Your task to perform on an android device: Clear all items from cart on amazon.com. Add logitech g pro to the cart on amazon.com, then select checkout. Image 0: 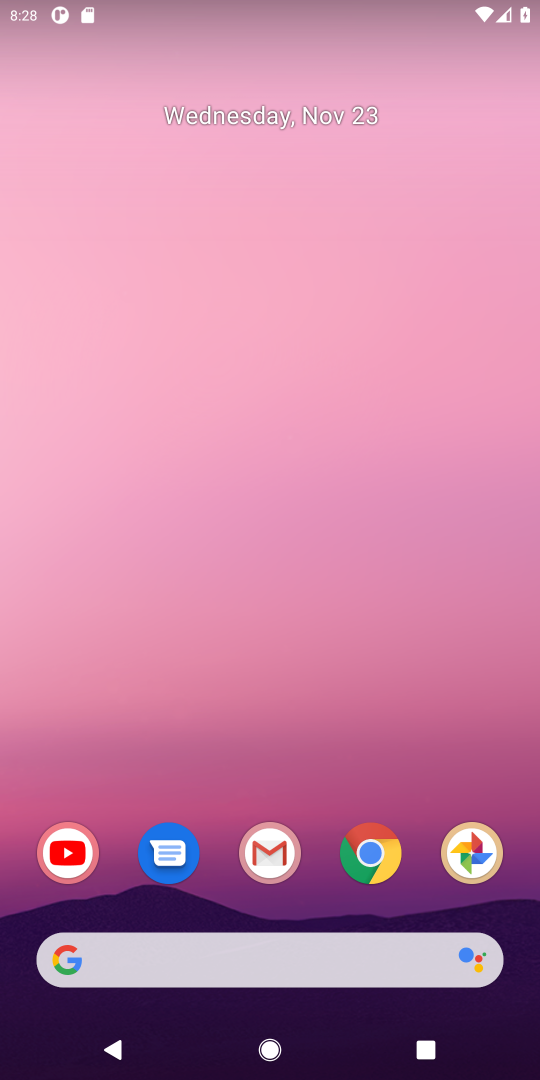
Step 0: click (367, 868)
Your task to perform on an android device: Clear all items from cart on amazon.com. Add logitech g pro to the cart on amazon.com, then select checkout. Image 1: 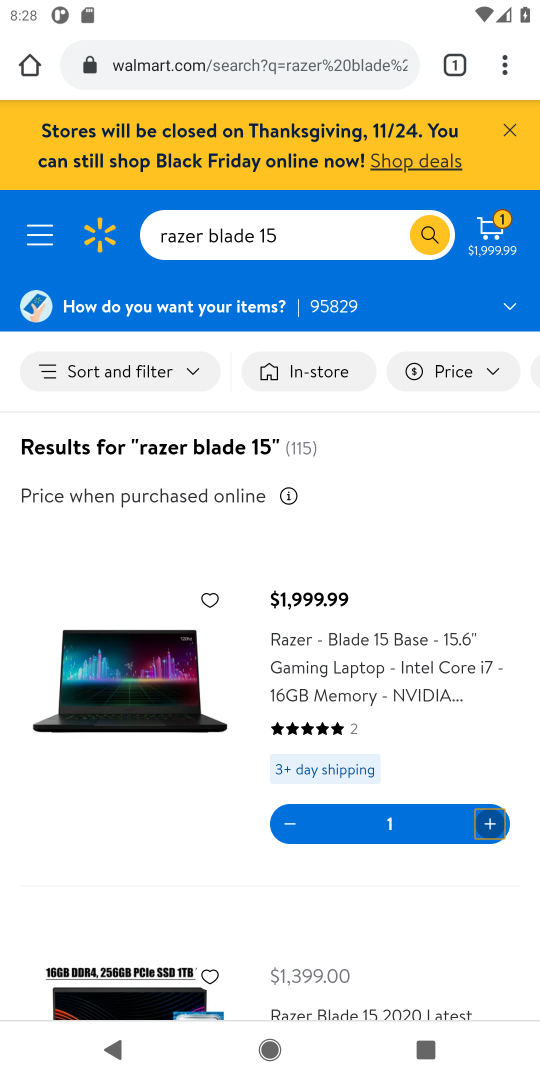
Step 1: click (226, 70)
Your task to perform on an android device: Clear all items from cart on amazon.com. Add logitech g pro to the cart on amazon.com, then select checkout. Image 2: 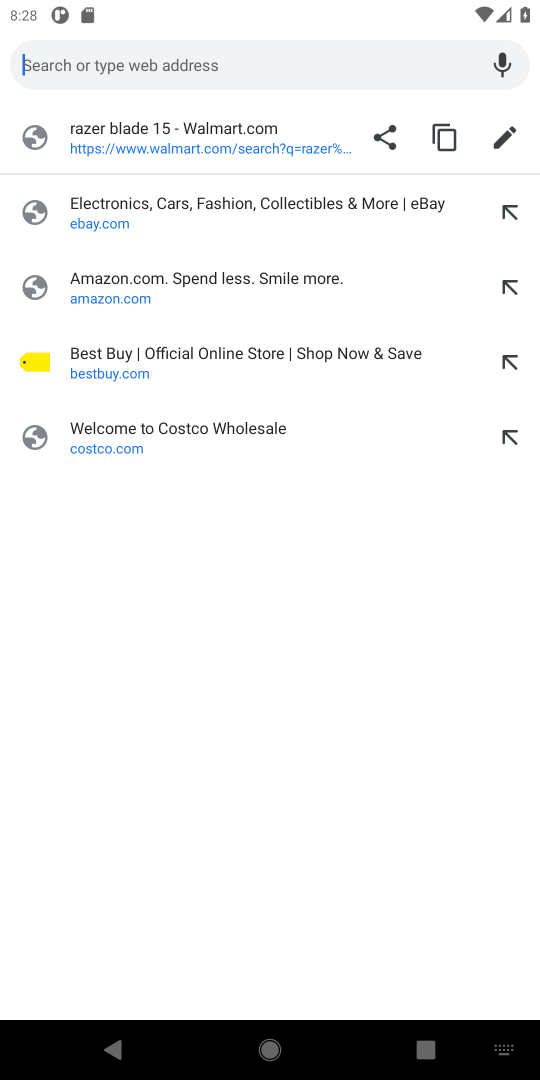
Step 2: click (104, 287)
Your task to perform on an android device: Clear all items from cart on amazon.com. Add logitech g pro to the cart on amazon.com, then select checkout. Image 3: 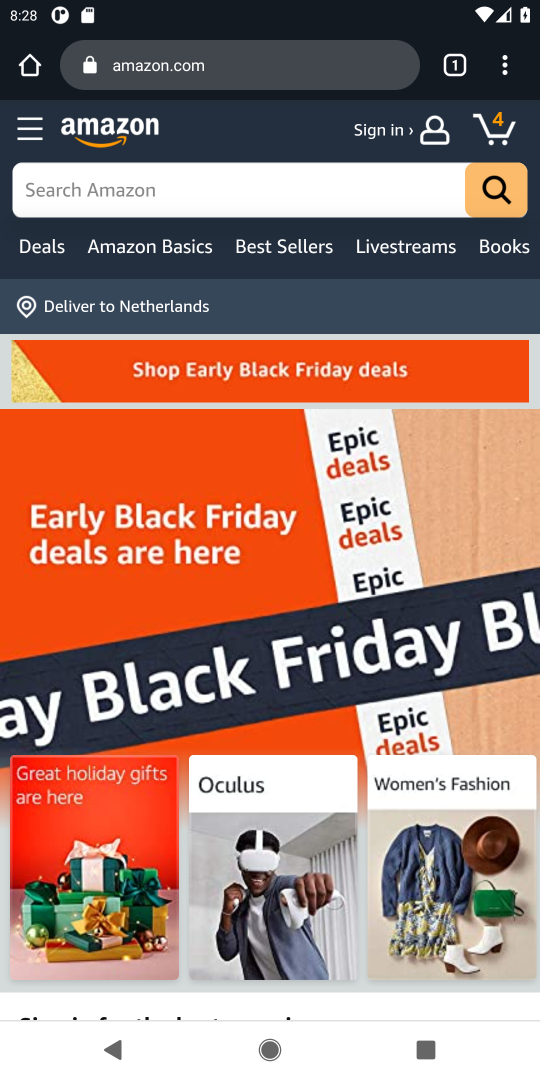
Step 3: click (502, 131)
Your task to perform on an android device: Clear all items from cart on amazon.com. Add logitech g pro to the cart on amazon.com, then select checkout. Image 4: 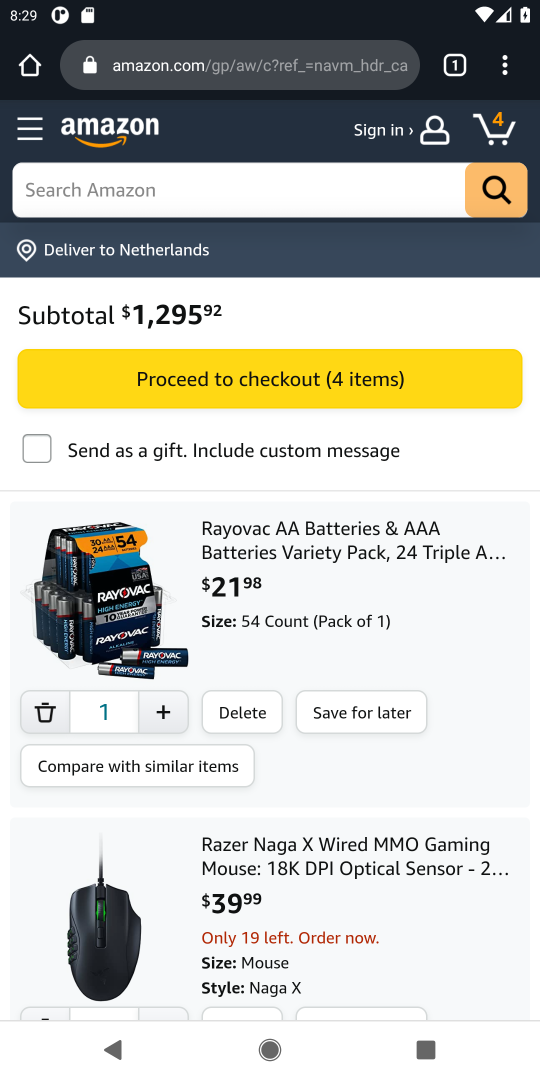
Step 4: click (235, 705)
Your task to perform on an android device: Clear all items from cart on amazon.com. Add logitech g pro to the cart on amazon.com, then select checkout. Image 5: 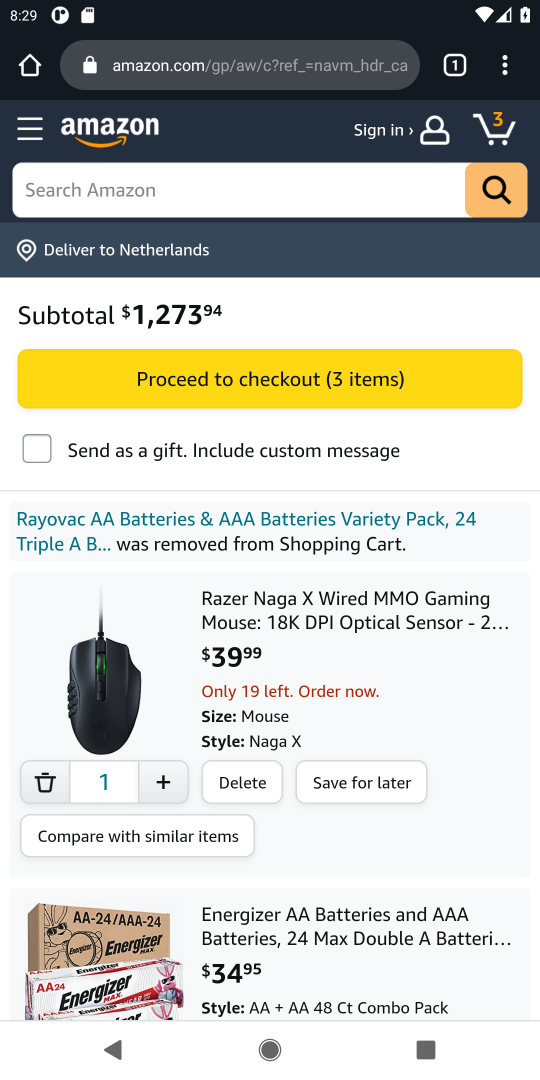
Step 5: click (231, 782)
Your task to perform on an android device: Clear all items from cart on amazon.com. Add logitech g pro to the cart on amazon.com, then select checkout. Image 6: 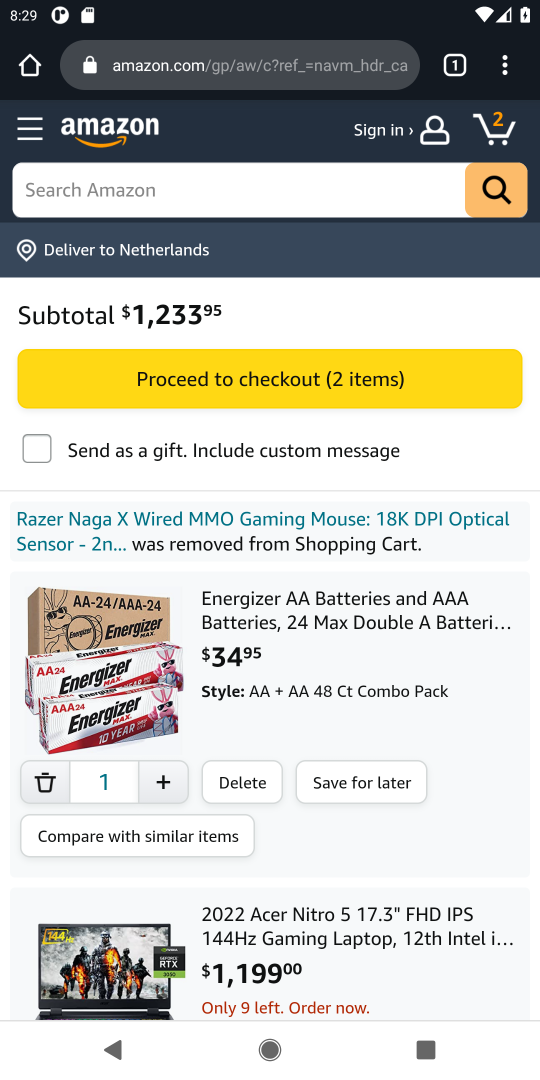
Step 6: click (231, 782)
Your task to perform on an android device: Clear all items from cart on amazon.com. Add logitech g pro to the cart on amazon.com, then select checkout. Image 7: 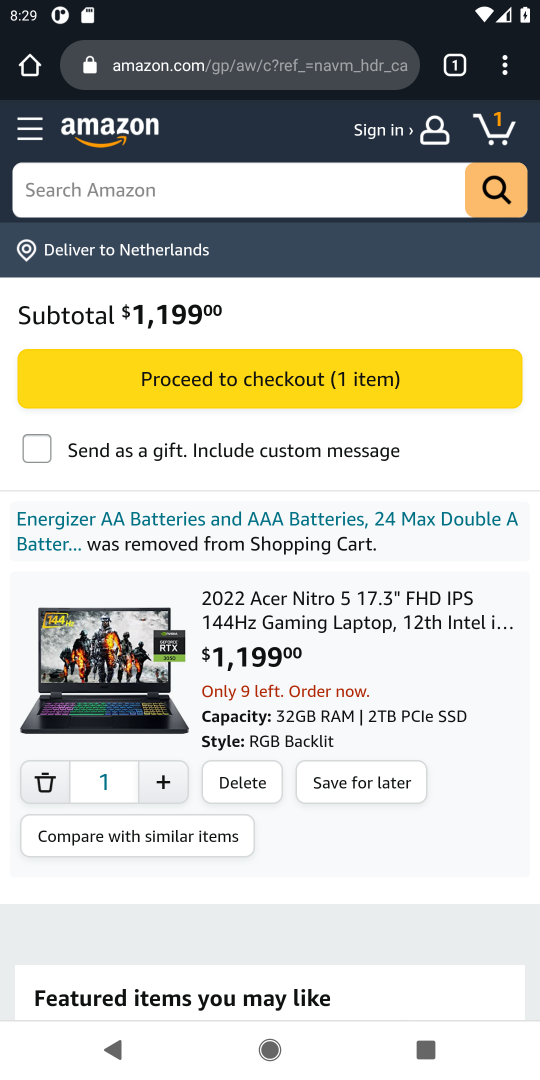
Step 7: click (231, 782)
Your task to perform on an android device: Clear all items from cart on amazon.com. Add logitech g pro to the cart on amazon.com, then select checkout. Image 8: 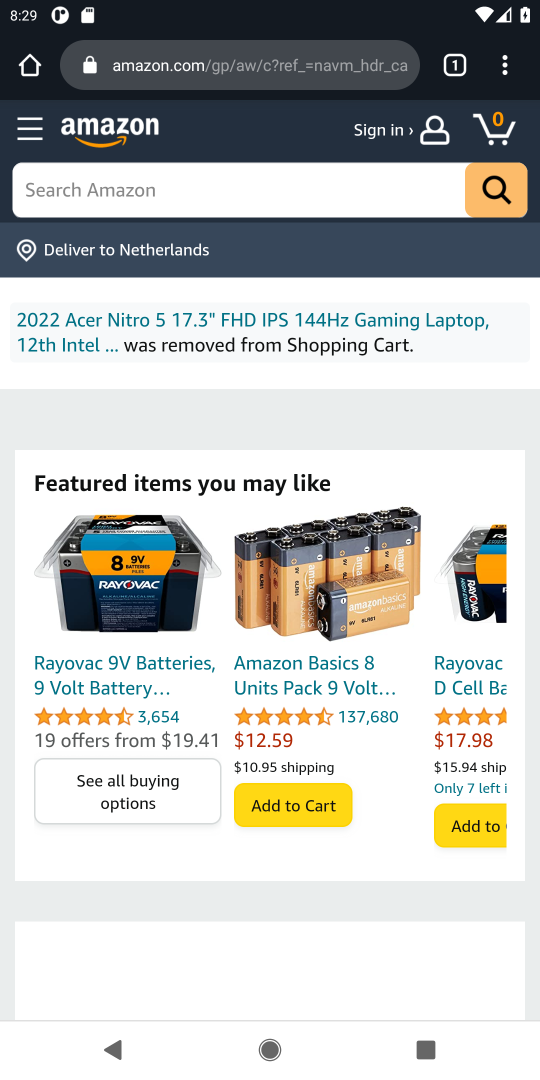
Step 8: click (138, 202)
Your task to perform on an android device: Clear all items from cart on amazon.com. Add logitech g pro to the cart on amazon.com, then select checkout. Image 9: 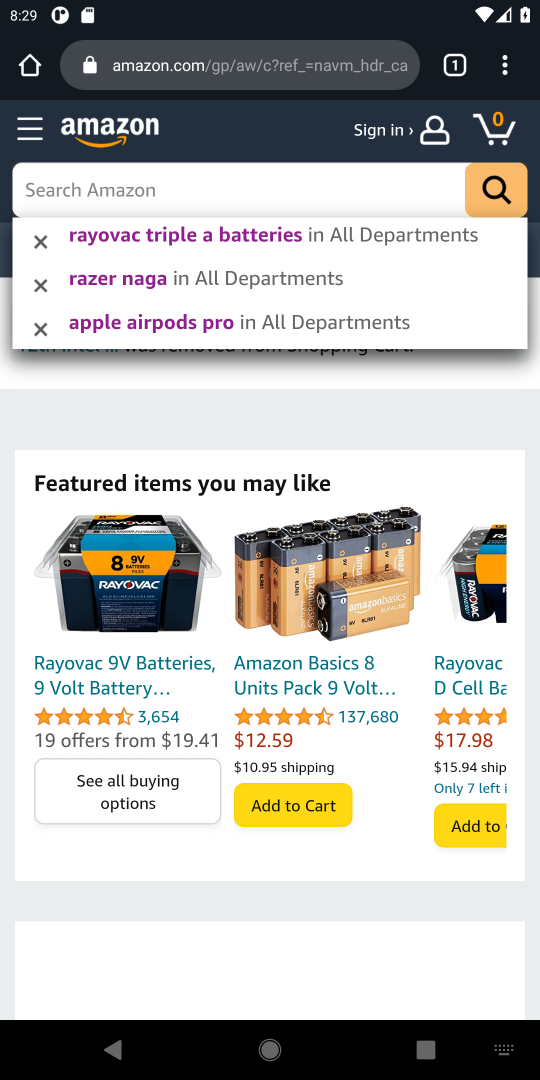
Step 9: type "logitech g pro"
Your task to perform on an android device: Clear all items from cart on amazon.com. Add logitech g pro to the cart on amazon.com, then select checkout. Image 10: 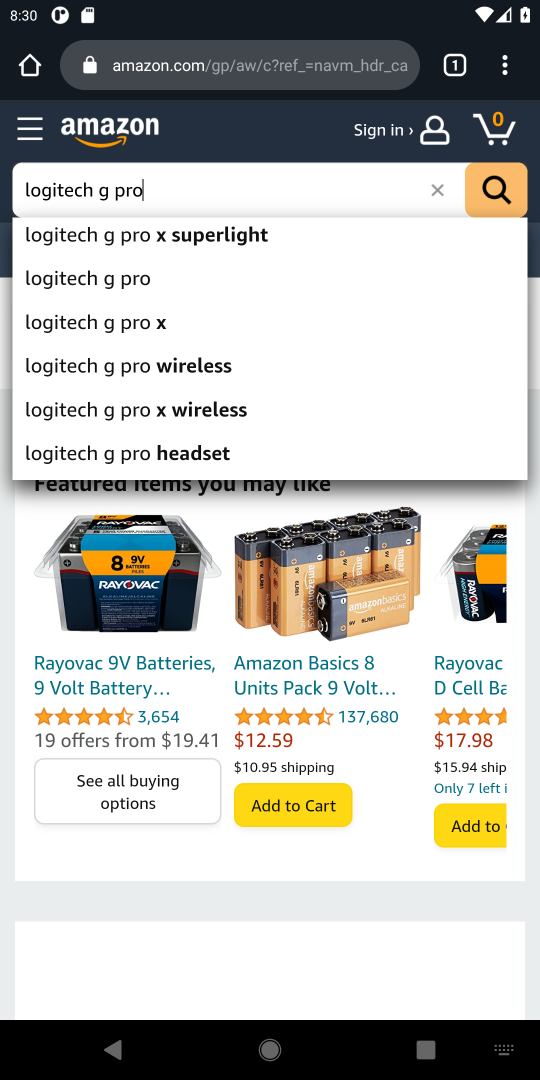
Step 10: click (73, 274)
Your task to perform on an android device: Clear all items from cart on amazon.com. Add logitech g pro to the cart on amazon.com, then select checkout. Image 11: 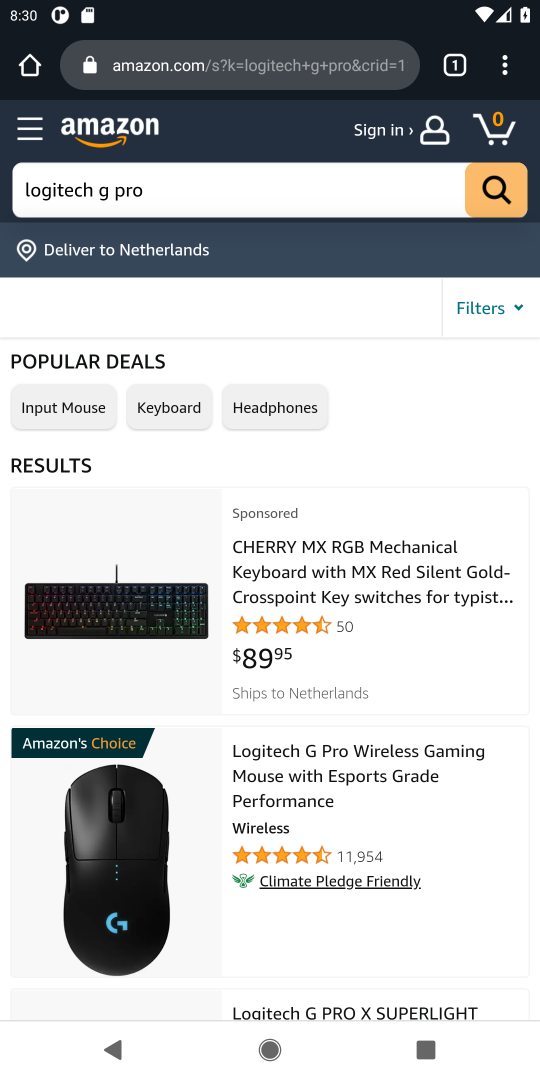
Step 11: drag from (129, 864) to (133, 540)
Your task to perform on an android device: Clear all items from cart on amazon.com. Add logitech g pro to the cart on amazon.com, then select checkout. Image 12: 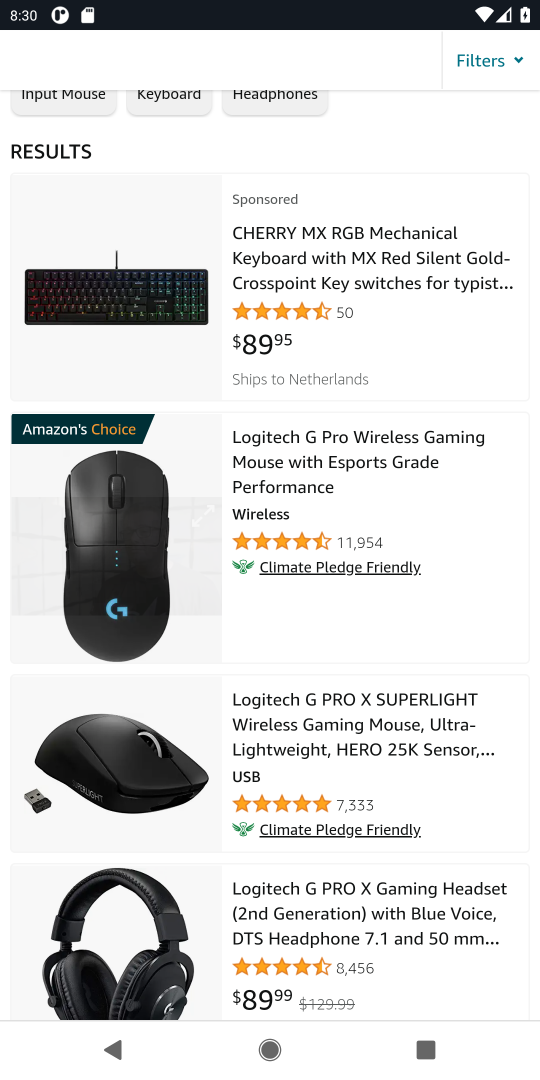
Step 12: drag from (134, 804) to (153, 515)
Your task to perform on an android device: Clear all items from cart on amazon.com. Add logitech g pro to the cart on amazon.com, then select checkout. Image 13: 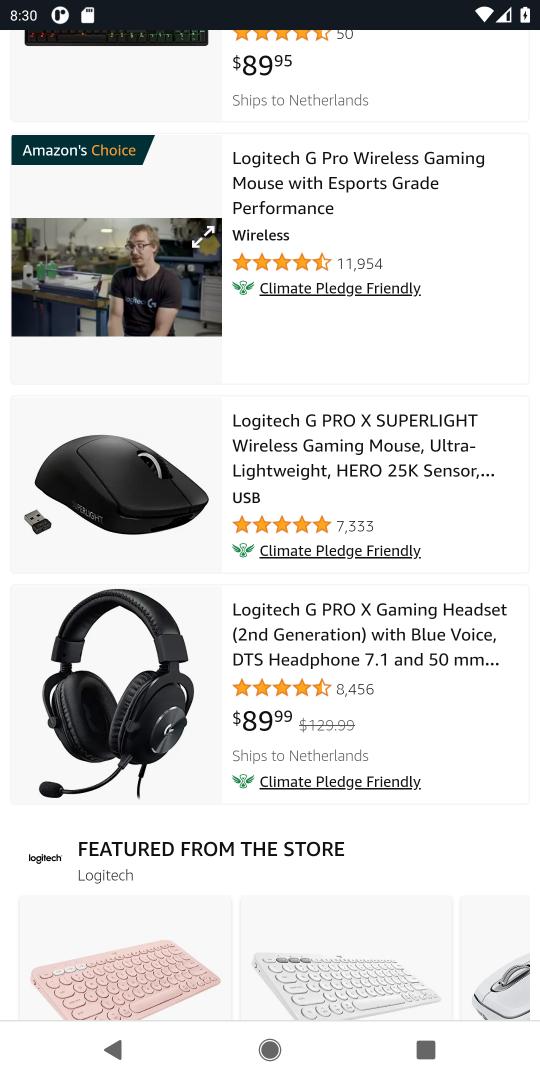
Step 13: click (119, 672)
Your task to perform on an android device: Clear all items from cart on amazon.com. Add logitech g pro to the cart on amazon.com, then select checkout. Image 14: 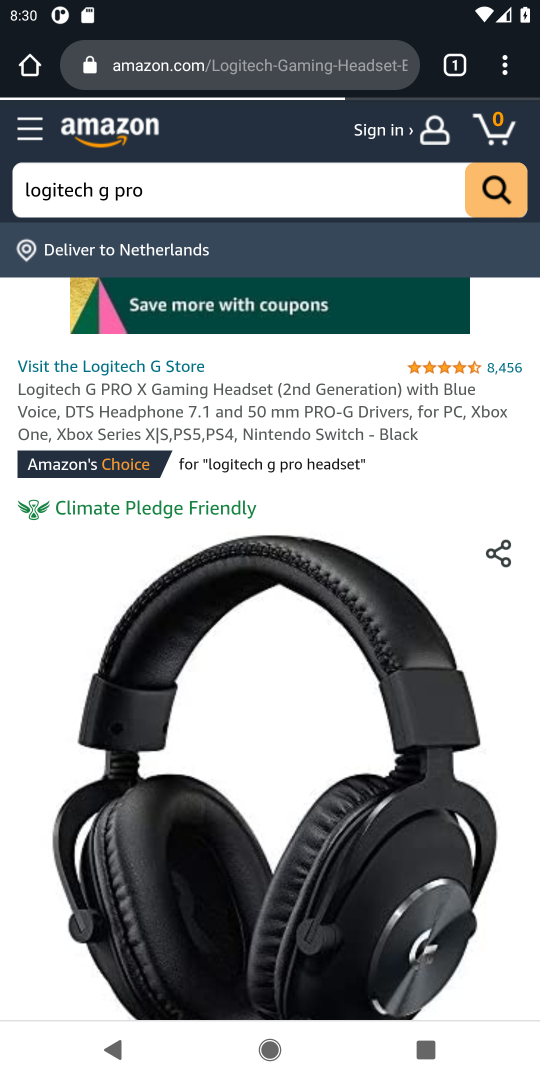
Step 14: drag from (233, 795) to (232, 303)
Your task to perform on an android device: Clear all items from cart on amazon.com. Add logitech g pro to the cart on amazon.com, then select checkout. Image 15: 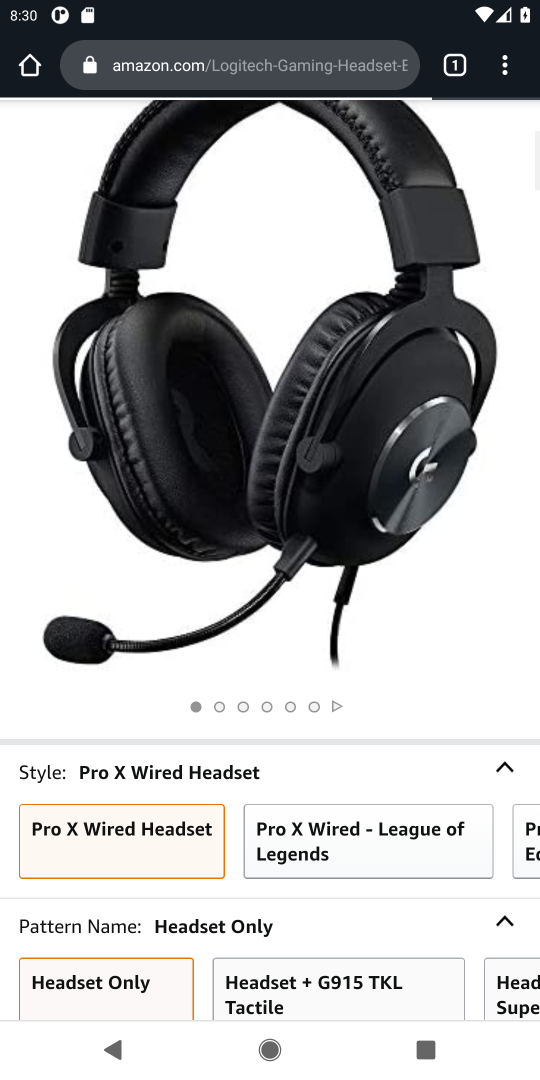
Step 15: drag from (239, 695) to (240, 285)
Your task to perform on an android device: Clear all items from cart on amazon.com. Add logitech g pro to the cart on amazon.com, then select checkout. Image 16: 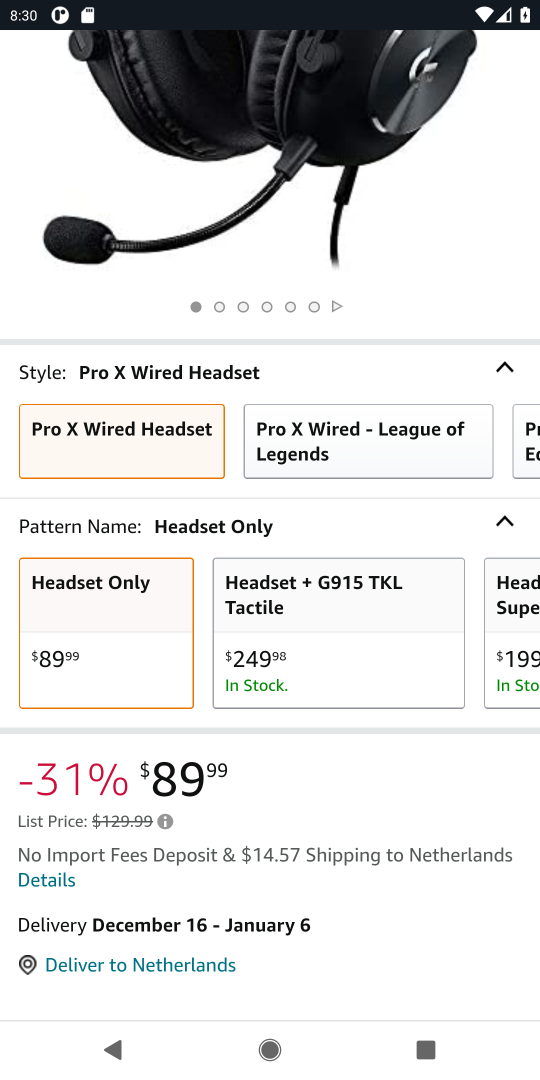
Step 16: drag from (242, 740) to (217, 400)
Your task to perform on an android device: Clear all items from cart on amazon.com. Add logitech g pro to the cart on amazon.com, then select checkout. Image 17: 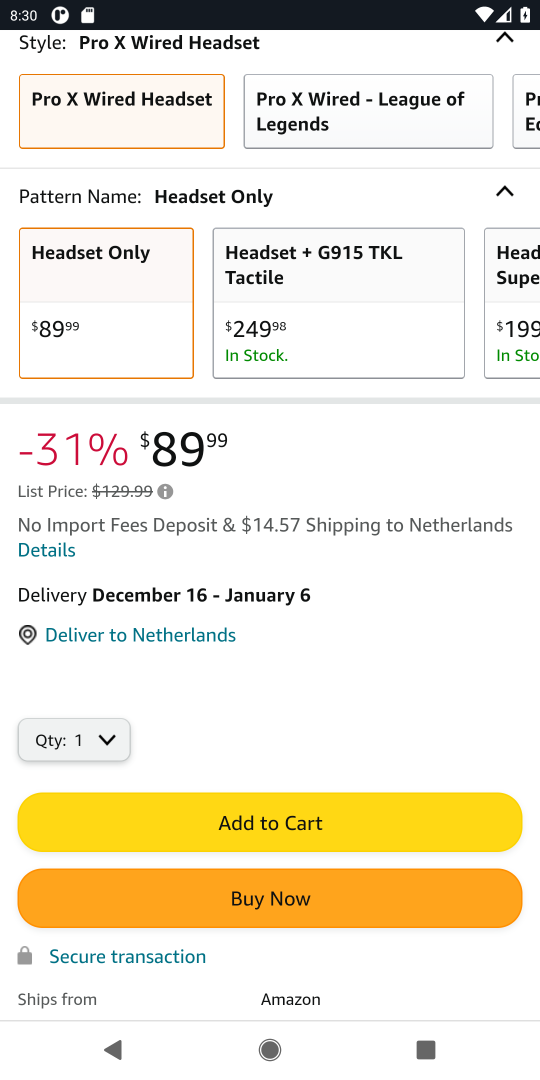
Step 17: click (247, 815)
Your task to perform on an android device: Clear all items from cart on amazon.com. Add logitech g pro to the cart on amazon.com, then select checkout. Image 18: 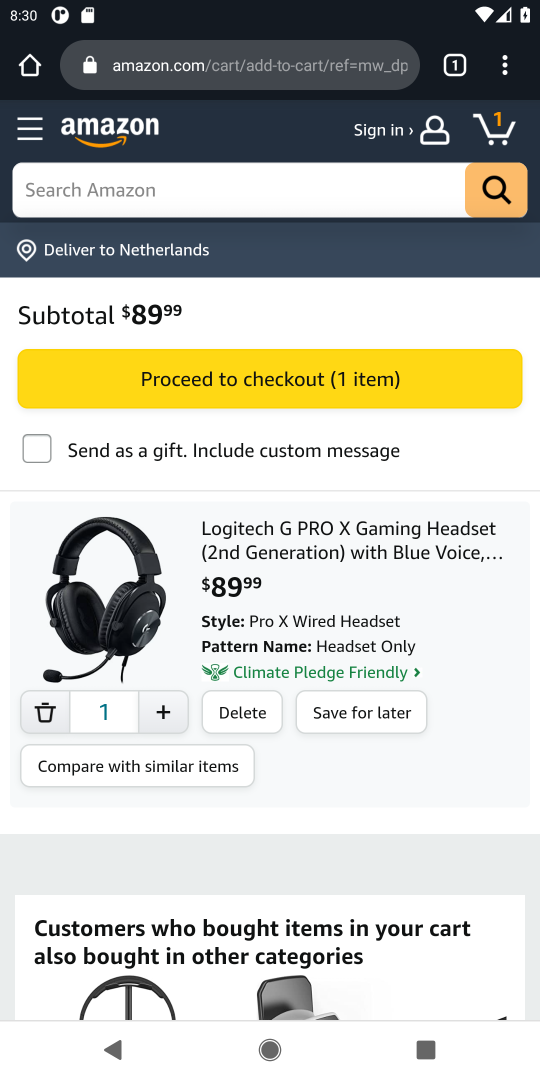
Step 18: click (240, 380)
Your task to perform on an android device: Clear all items from cart on amazon.com. Add logitech g pro to the cart on amazon.com, then select checkout. Image 19: 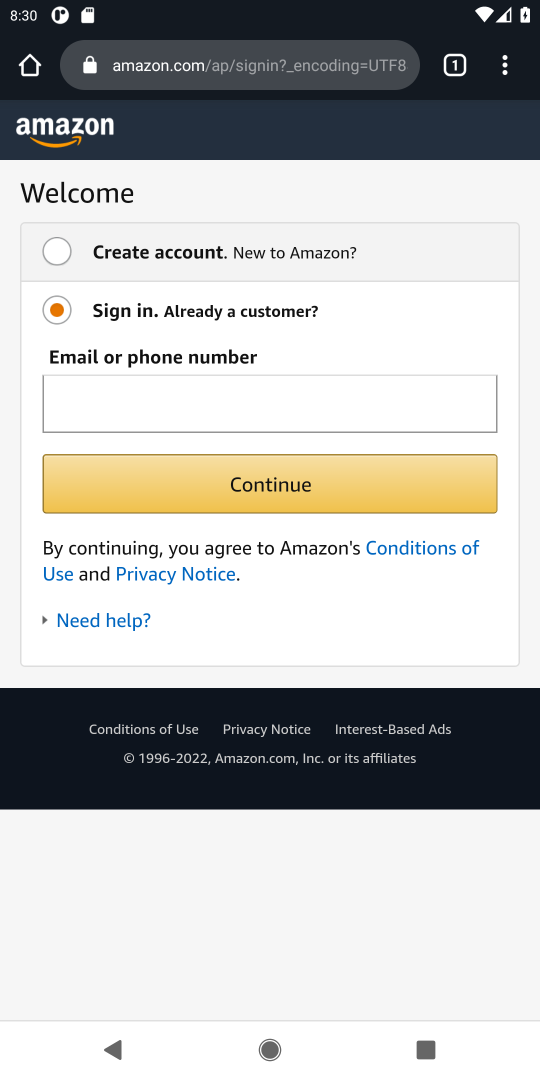
Step 19: task complete